Your task to perform on an android device: Open the Play Movies app and select the watchlist tab. Image 0: 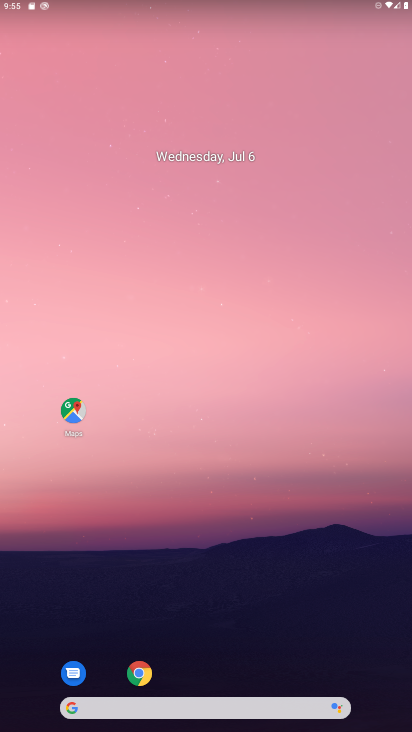
Step 0: drag from (219, 656) to (196, 35)
Your task to perform on an android device: Open the Play Movies app and select the watchlist tab. Image 1: 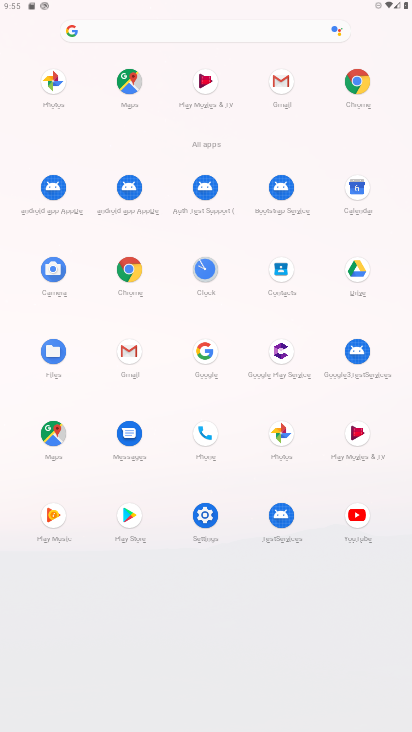
Step 1: click (355, 459)
Your task to perform on an android device: Open the Play Movies app and select the watchlist tab. Image 2: 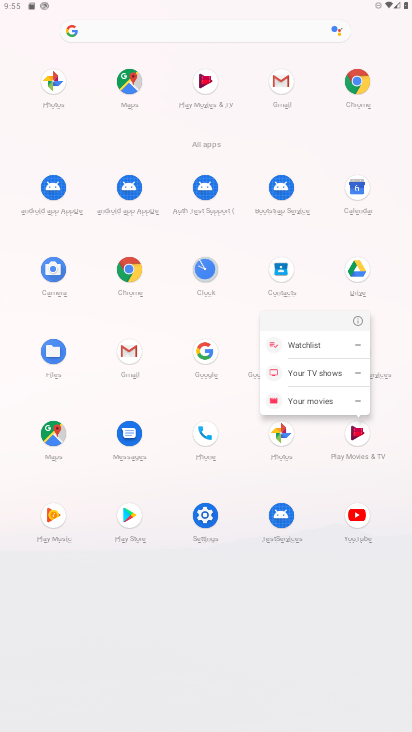
Step 2: click (314, 348)
Your task to perform on an android device: Open the Play Movies app and select the watchlist tab. Image 3: 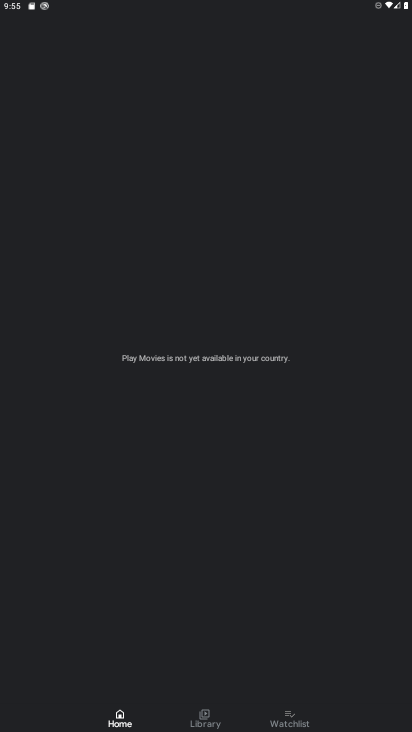
Step 3: task complete